Your task to perform on an android device: Clear the cart on walmart. Search for acer nitro on walmart, select the first entry, add it to the cart, then select checkout. Image 0: 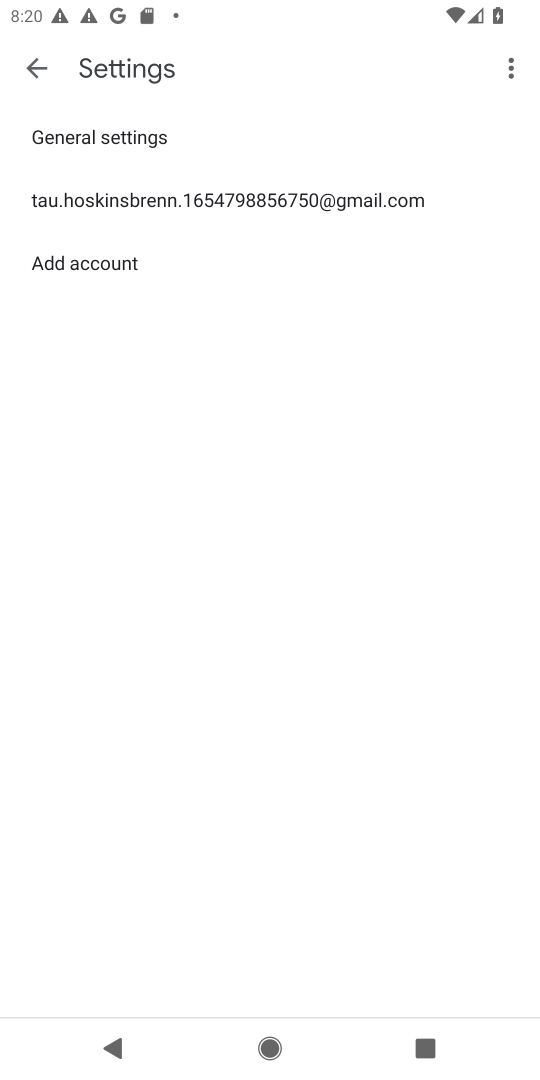
Step 0: press home button
Your task to perform on an android device: Clear the cart on walmart. Search for acer nitro on walmart, select the first entry, add it to the cart, then select checkout. Image 1: 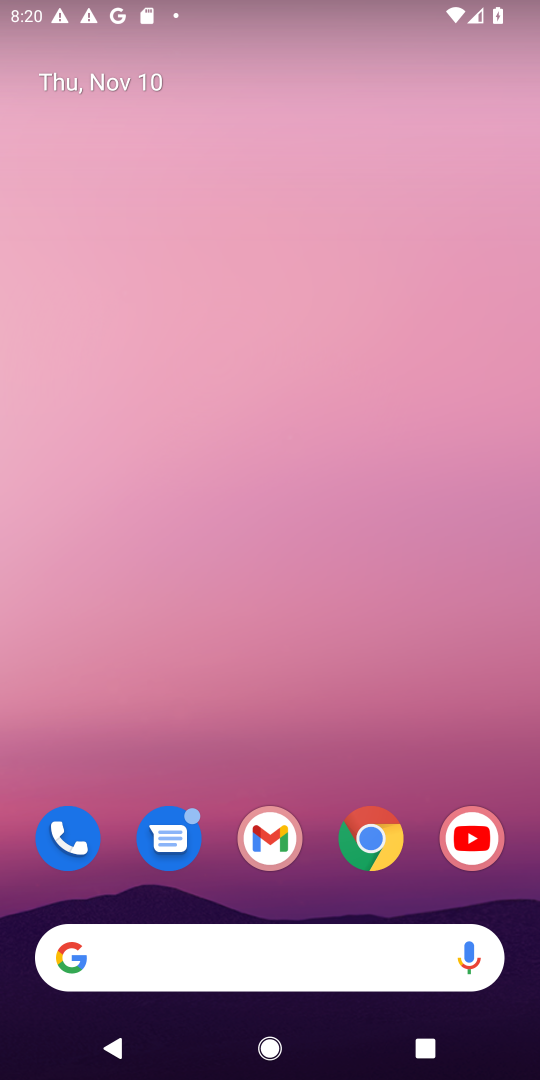
Step 1: drag from (324, 899) to (312, 167)
Your task to perform on an android device: Clear the cart on walmart. Search for acer nitro on walmart, select the first entry, add it to the cart, then select checkout. Image 2: 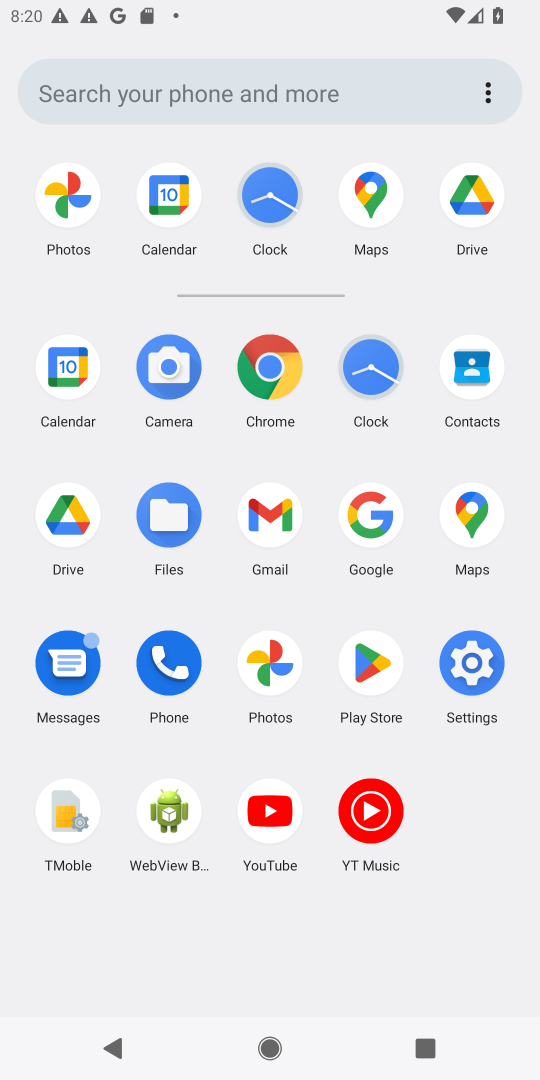
Step 2: click (272, 363)
Your task to perform on an android device: Clear the cart on walmart. Search for acer nitro on walmart, select the first entry, add it to the cart, then select checkout. Image 3: 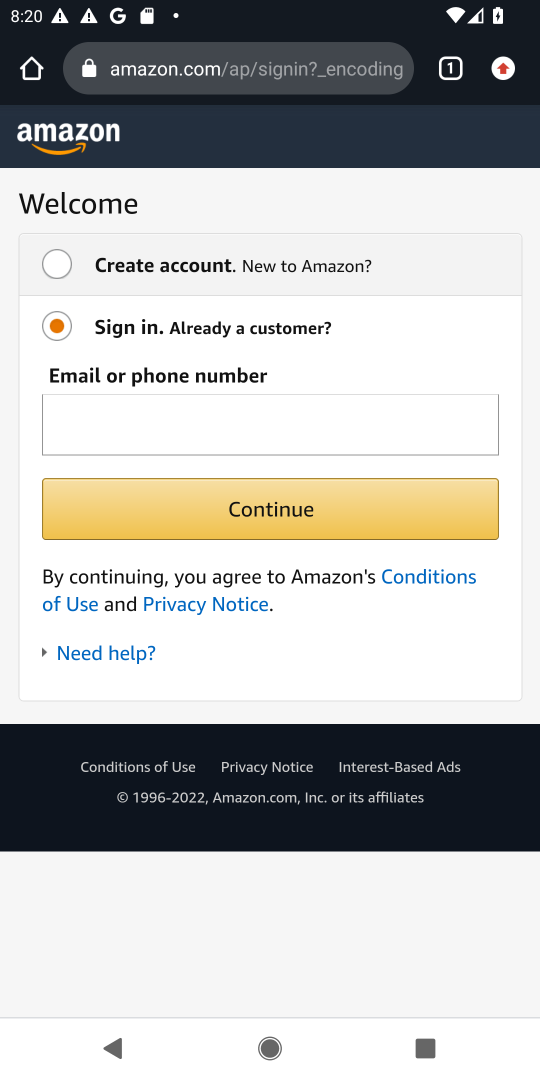
Step 3: click (273, 78)
Your task to perform on an android device: Clear the cart on walmart. Search for acer nitro on walmart, select the first entry, add it to the cart, then select checkout. Image 4: 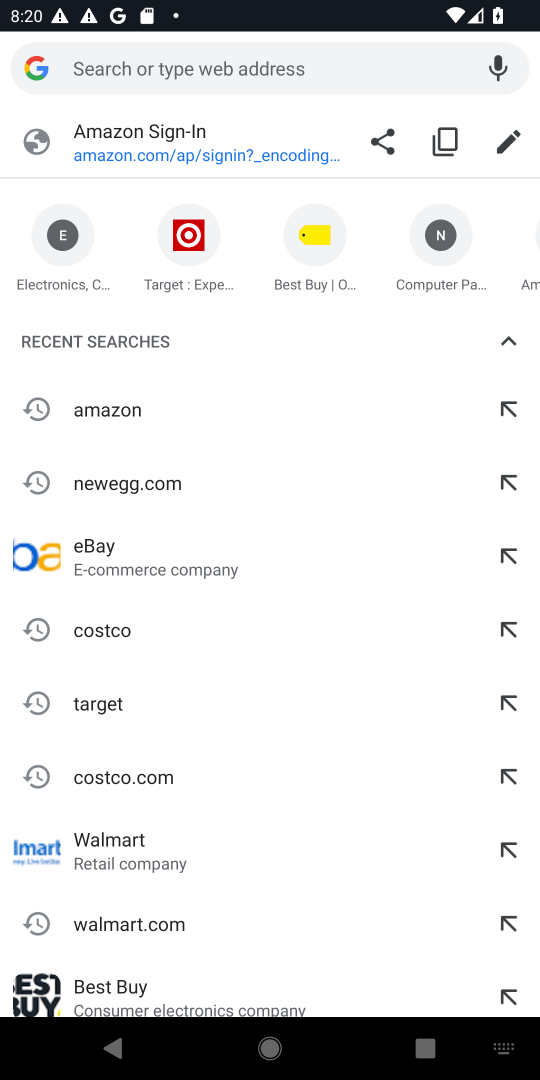
Step 4: type "walmart.com"
Your task to perform on an android device: Clear the cart on walmart. Search for acer nitro on walmart, select the first entry, add it to the cart, then select checkout. Image 5: 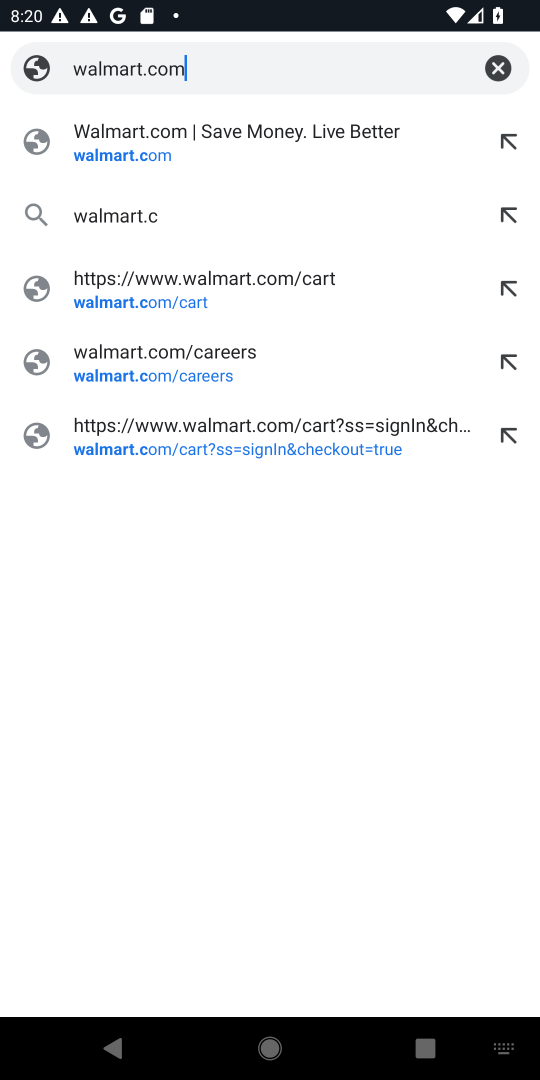
Step 5: press enter
Your task to perform on an android device: Clear the cart on walmart. Search for acer nitro on walmart, select the first entry, add it to the cart, then select checkout. Image 6: 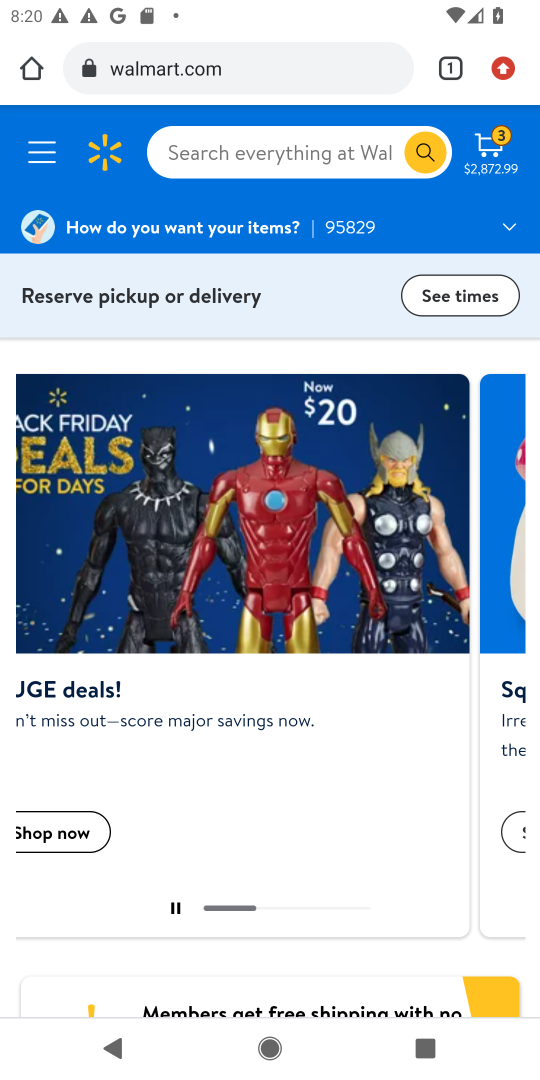
Step 6: click (497, 146)
Your task to perform on an android device: Clear the cart on walmart. Search for acer nitro on walmart, select the first entry, add it to the cart, then select checkout. Image 7: 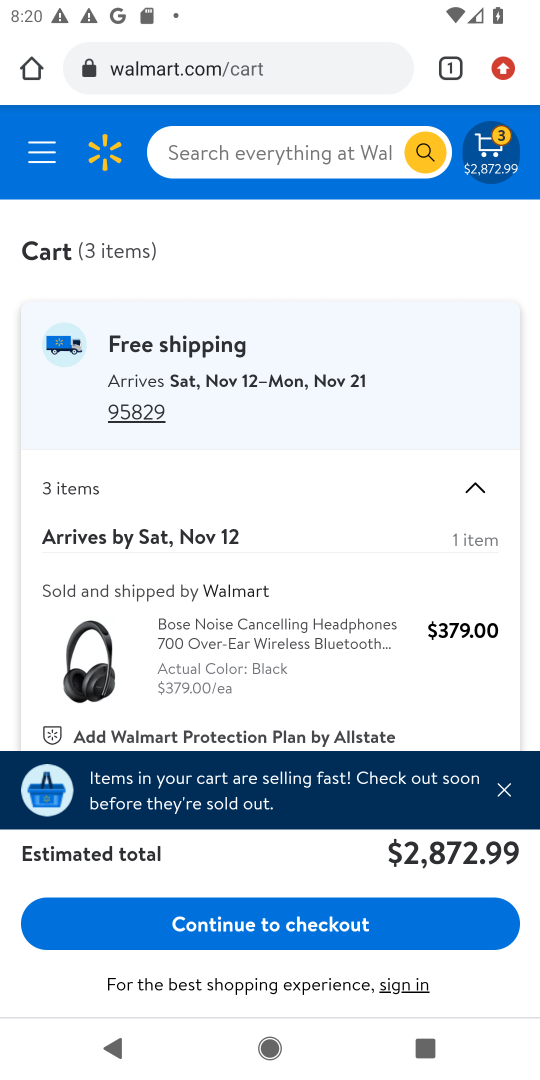
Step 7: drag from (336, 669) to (353, 211)
Your task to perform on an android device: Clear the cart on walmart. Search for acer nitro on walmart, select the first entry, add it to the cart, then select checkout. Image 8: 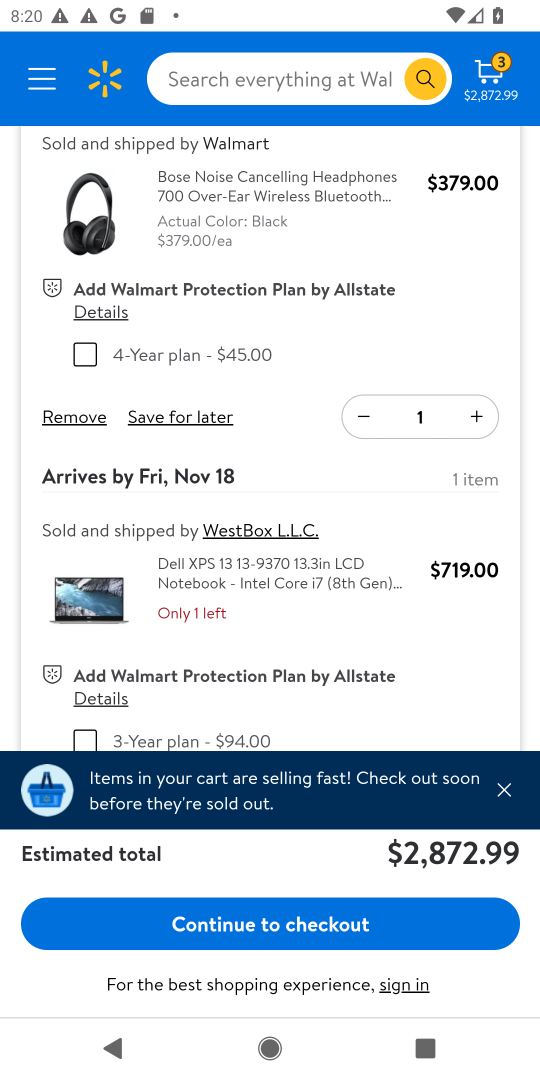
Step 8: click (79, 430)
Your task to perform on an android device: Clear the cart on walmart. Search for acer nitro on walmart, select the first entry, add it to the cart, then select checkout. Image 9: 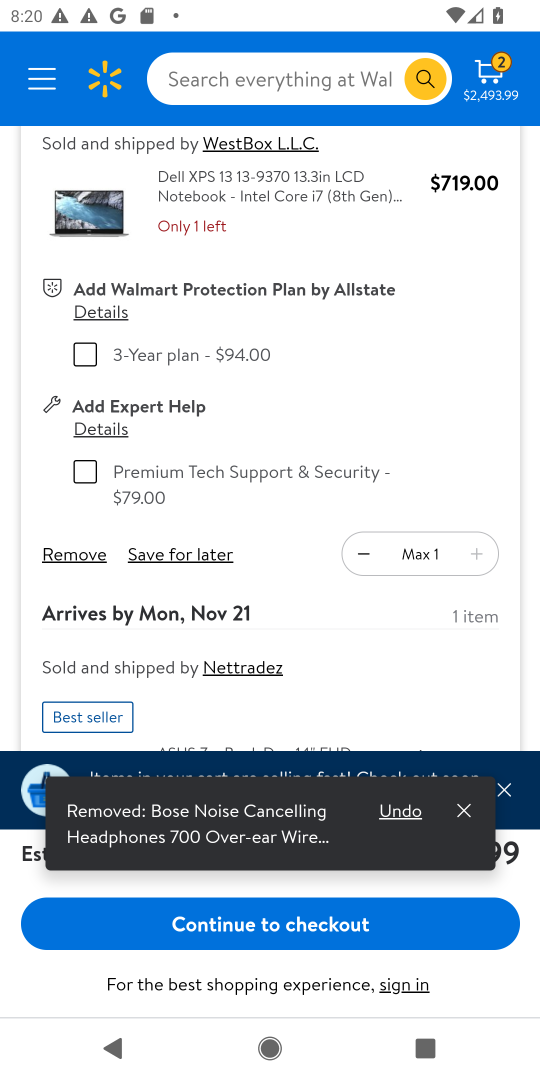
Step 9: click (82, 544)
Your task to perform on an android device: Clear the cart on walmart. Search for acer nitro on walmart, select the first entry, add it to the cart, then select checkout. Image 10: 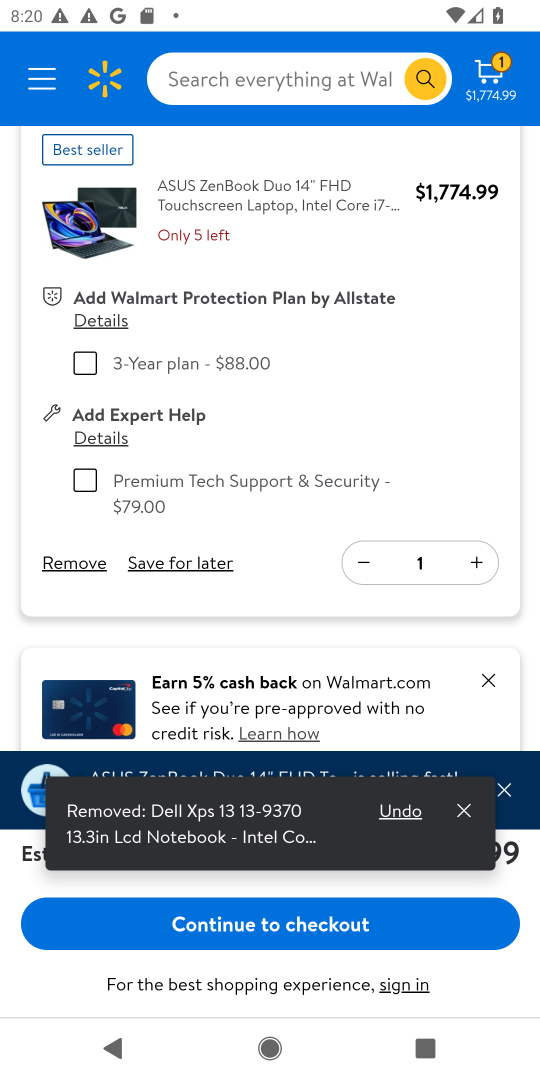
Step 10: click (62, 551)
Your task to perform on an android device: Clear the cart on walmart. Search for acer nitro on walmart, select the first entry, add it to the cart, then select checkout. Image 11: 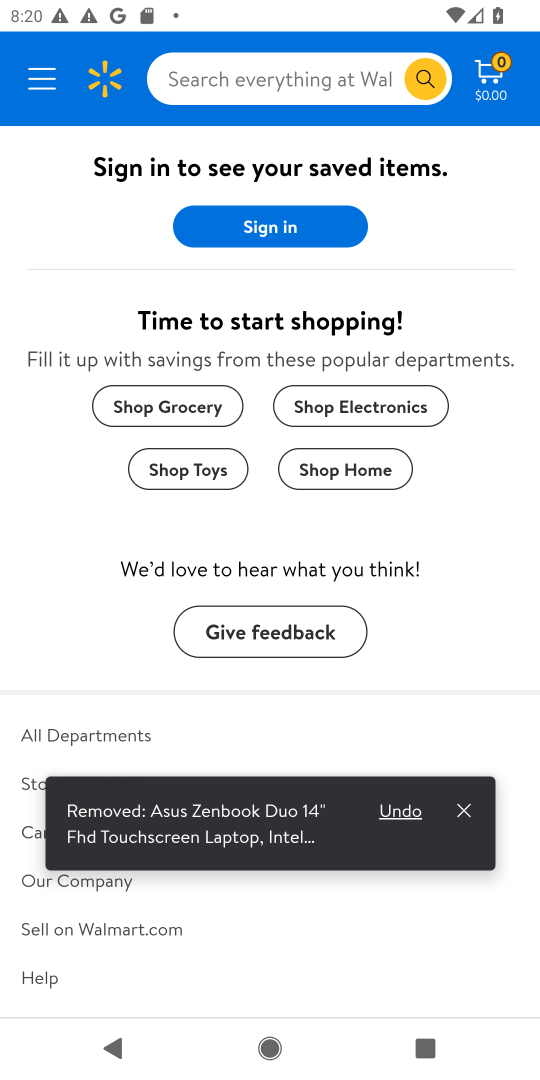
Step 11: click (287, 66)
Your task to perform on an android device: Clear the cart on walmart. Search for acer nitro on walmart, select the first entry, add it to the cart, then select checkout. Image 12: 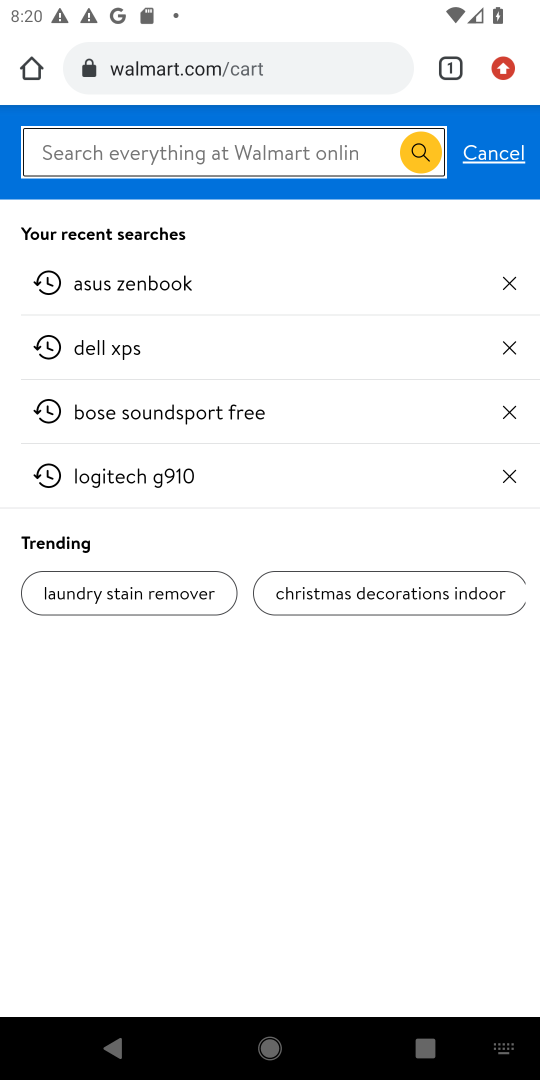
Step 12: type "acer nitro"
Your task to perform on an android device: Clear the cart on walmart. Search for acer nitro on walmart, select the first entry, add it to the cart, then select checkout. Image 13: 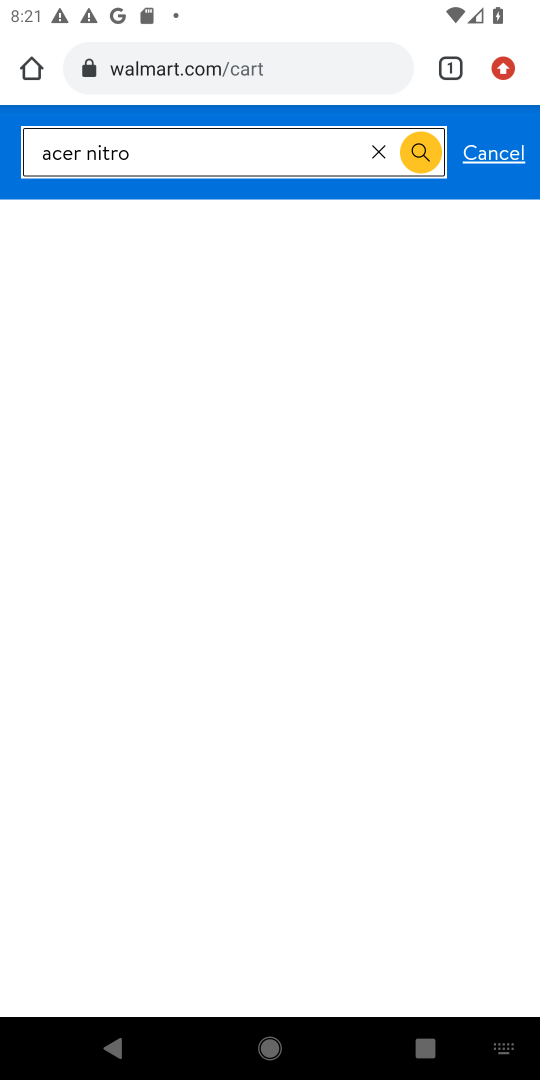
Step 13: press enter
Your task to perform on an android device: Clear the cart on walmart. Search for acer nitro on walmart, select the first entry, add it to the cart, then select checkout. Image 14: 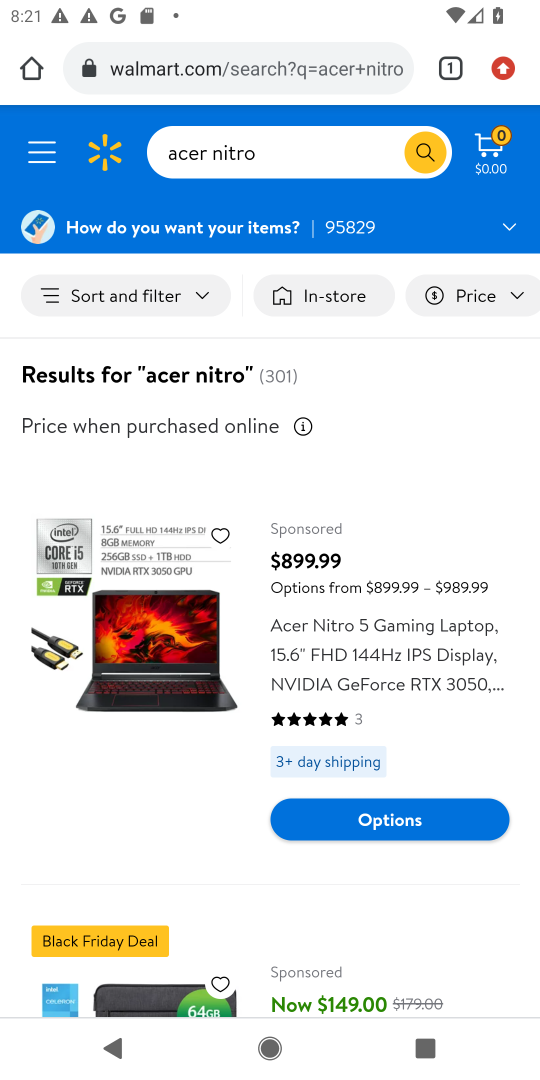
Step 14: drag from (385, 913) to (400, 121)
Your task to perform on an android device: Clear the cart on walmart. Search for acer nitro on walmart, select the first entry, add it to the cart, then select checkout. Image 15: 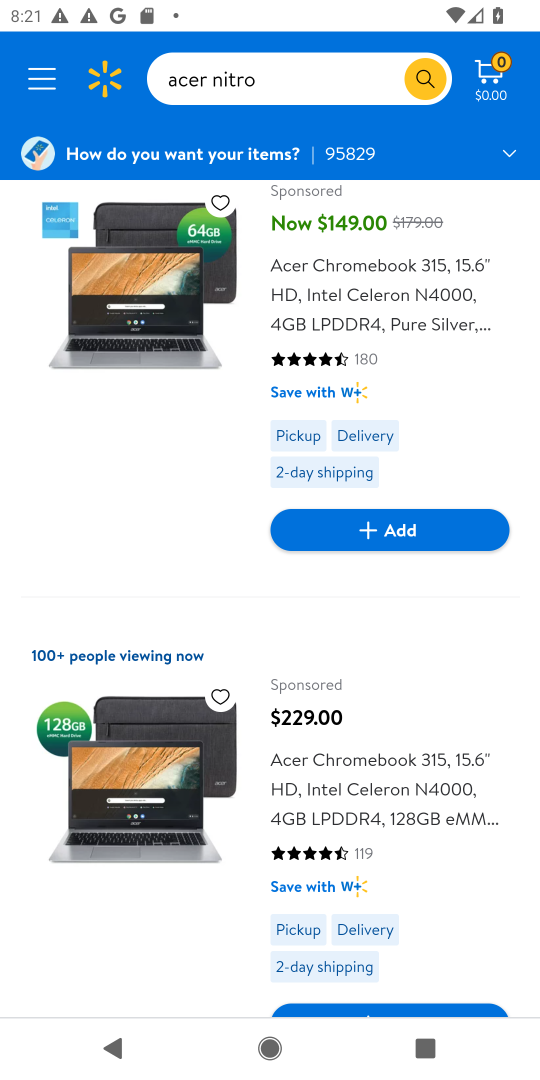
Step 15: drag from (357, 852) to (352, 168)
Your task to perform on an android device: Clear the cart on walmart. Search for acer nitro on walmart, select the first entry, add it to the cart, then select checkout. Image 16: 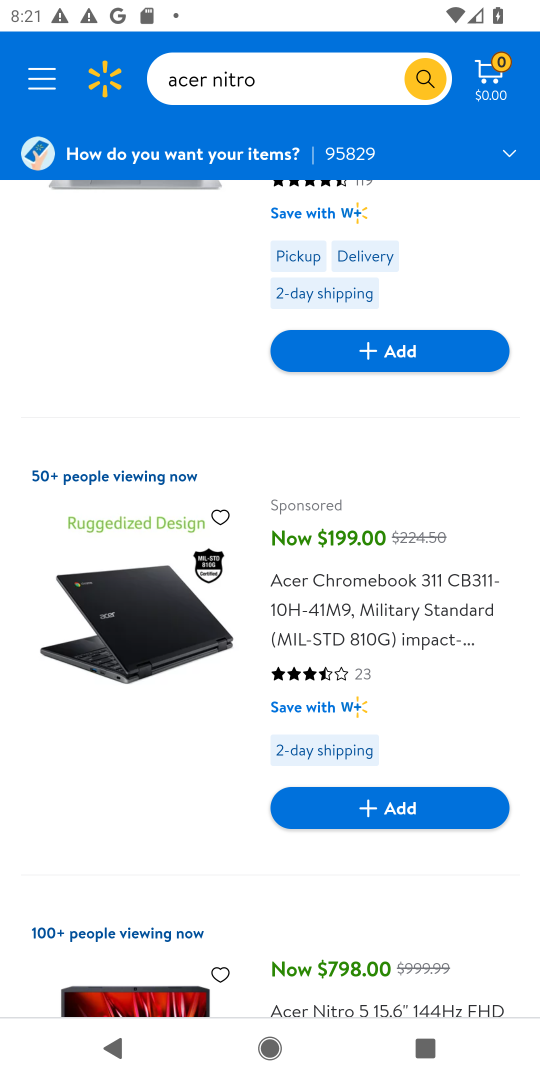
Step 16: drag from (246, 925) to (229, 220)
Your task to perform on an android device: Clear the cart on walmart. Search for acer nitro on walmart, select the first entry, add it to the cart, then select checkout. Image 17: 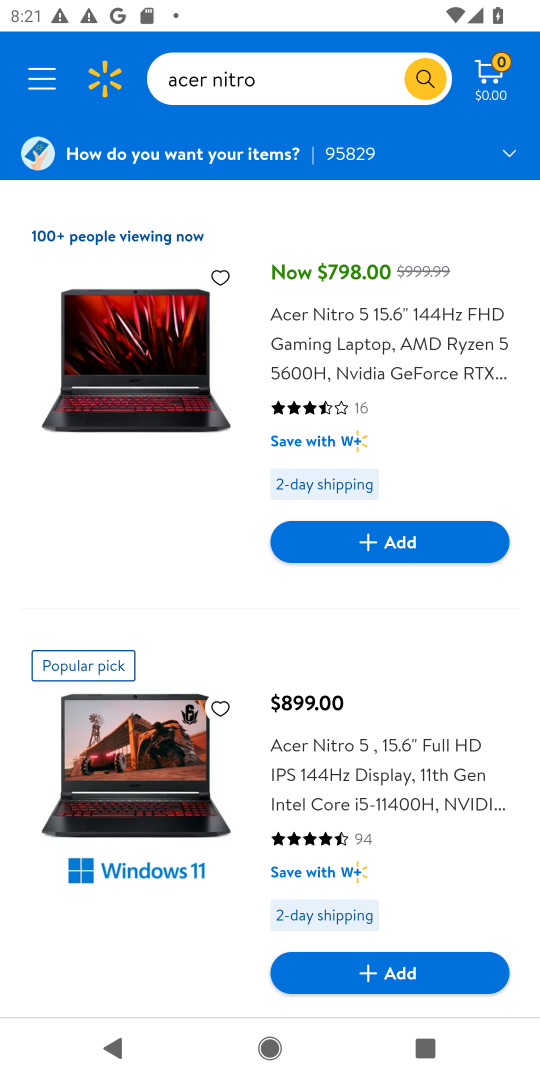
Step 17: drag from (136, 634) to (142, 871)
Your task to perform on an android device: Clear the cart on walmart. Search for acer nitro on walmart, select the first entry, add it to the cart, then select checkout. Image 18: 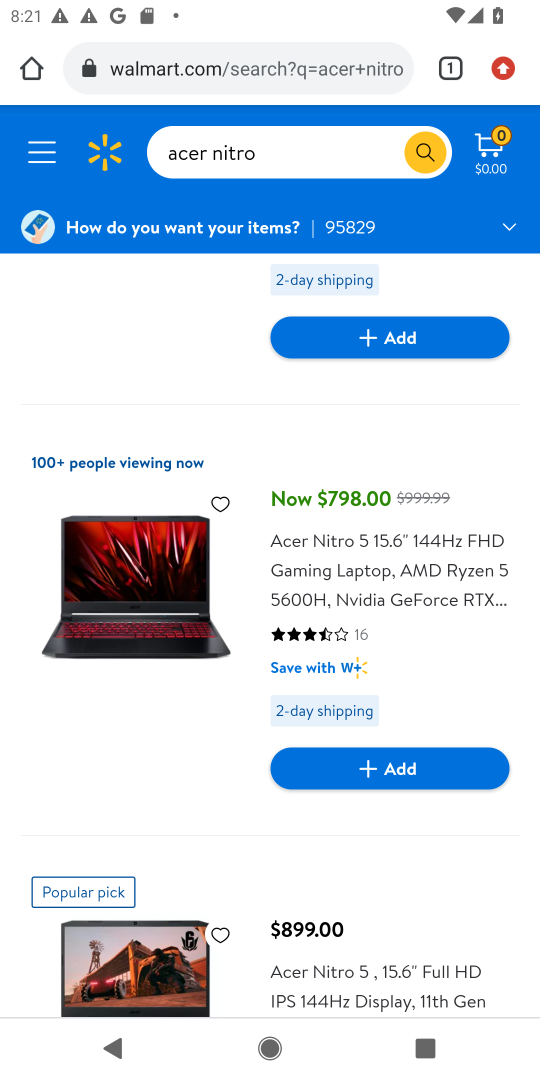
Step 18: drag from (214, 388) to (255, 325)
Your task to perform on an android device: Clear the cart on walmart. Search for acer nitro on walmart, select the first entry, add it to the cart, then select checkout. Image 19: 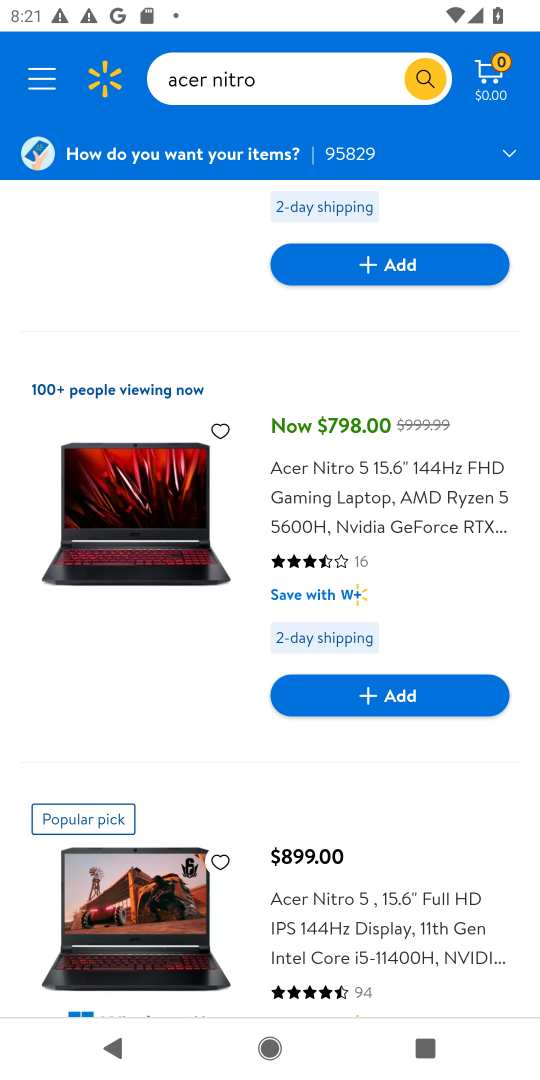
Step 19: drag from (165, 327) to (269, 735)
Your task to perform on an android device: Clear the cart on walmart. Search for acer nitro on walmart, select the first entry, add it to the cart, then select checkout. Image 20: 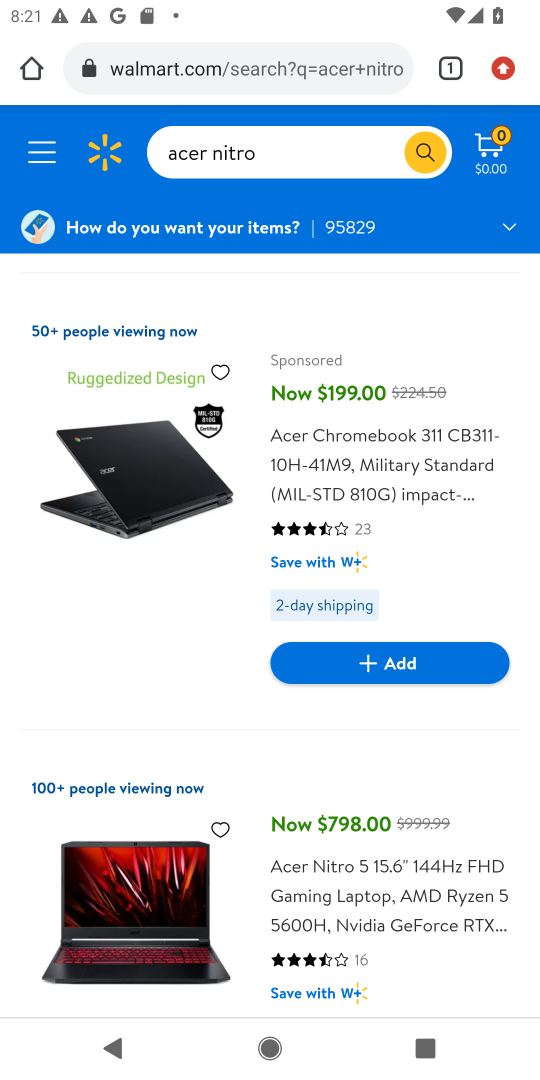
Step 20: drag from (391, 917) to (426, 576)
Your task to perform on an android device: Clear the cart on walmart. Search for acer nitro on walmart, select the first entry, add it to the cart, then select checkout. Image 21: 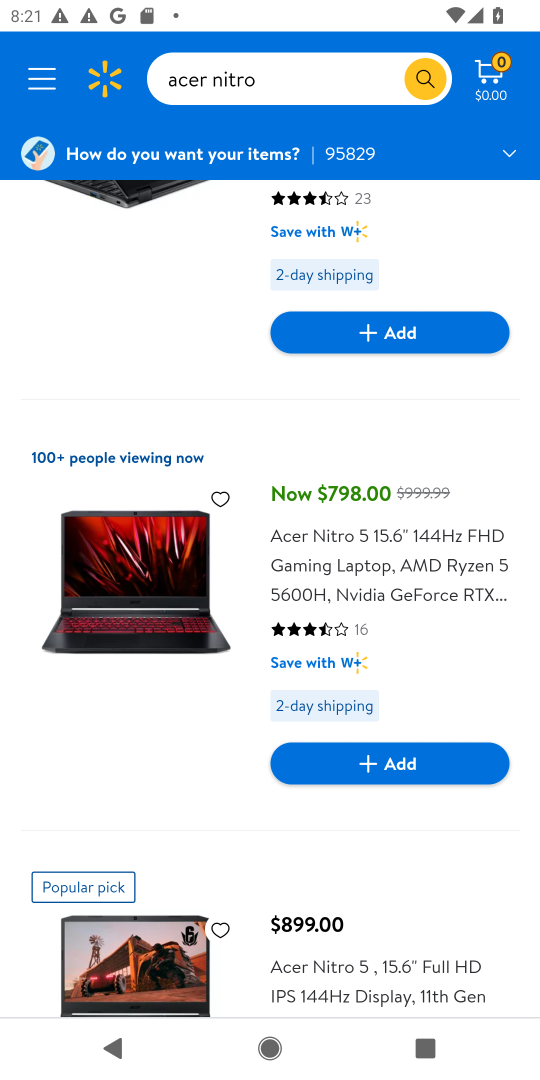
Step 21: click (440, 763)
Your task to perform on an android device: Clear the cart on walmart. Search for acer nitro on walmart, select the first entry, add it to the cart, then select checkout. Image 22: 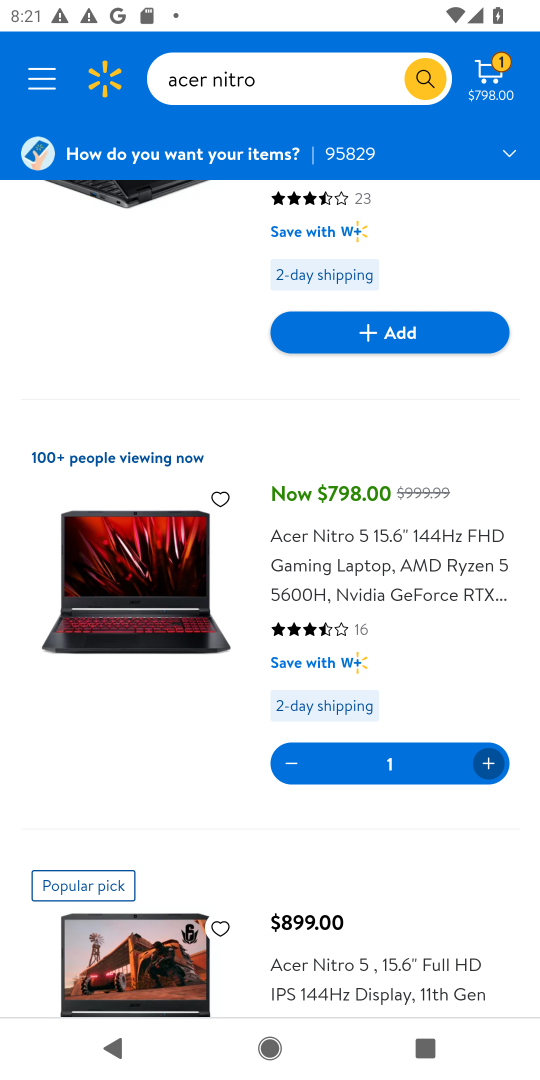
Step 22: click (496, 71)
Your task to perform on an android device: Clear the cart on walmart. Search for acer nitro on walmart, select the first entry, add it to the cart, then select checkout. Image 23: 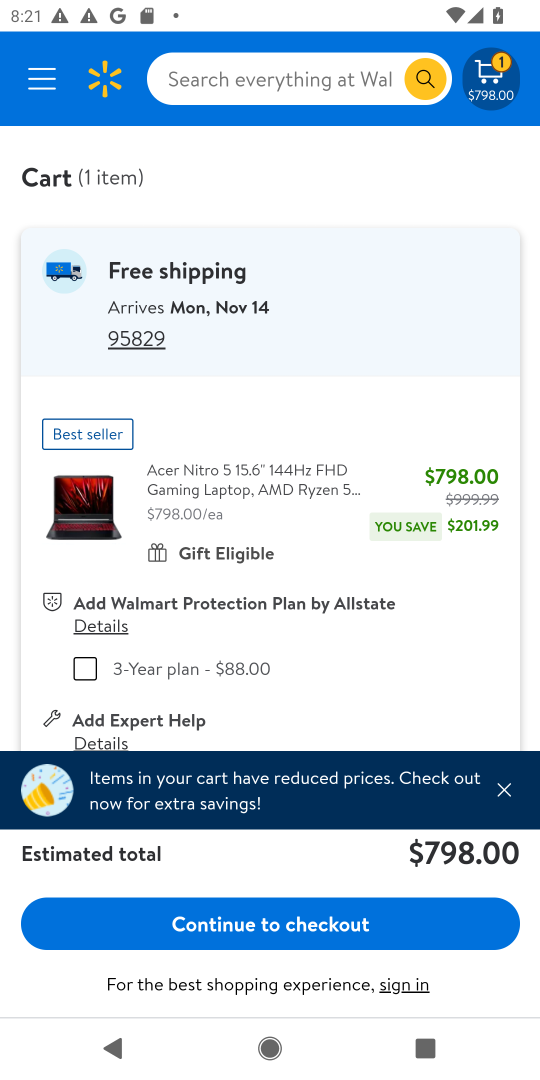
Step 23: click (279, 914)
Your task to perform on an android device: Clear the cart on walmart. Search for acer nitro on walmart, select the first entry, add it to the cart, then select checkout. Image 24: 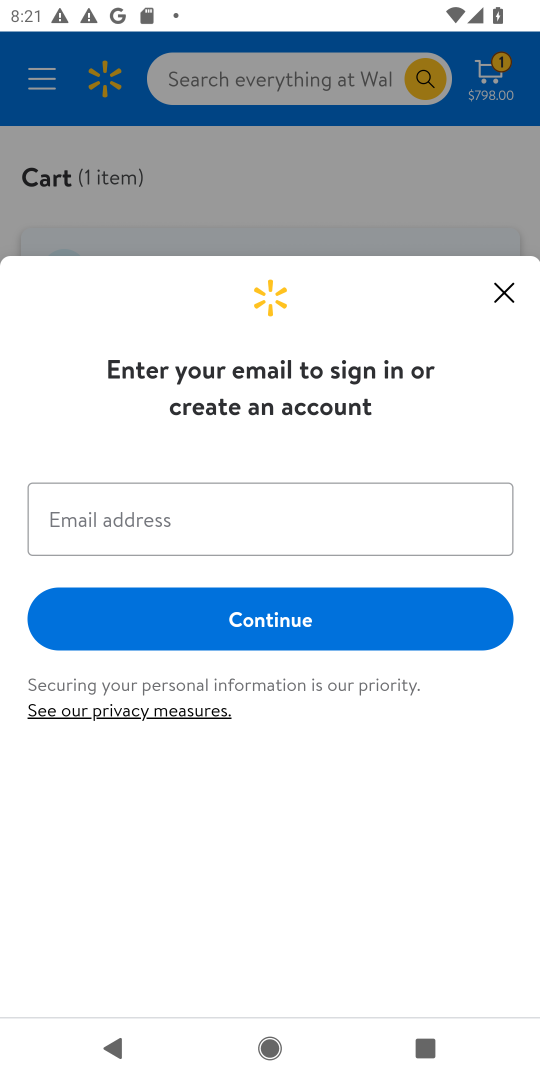
Step 24: task complete